Your task to perform on an android device: Open Maps and search for coffee Image 0: 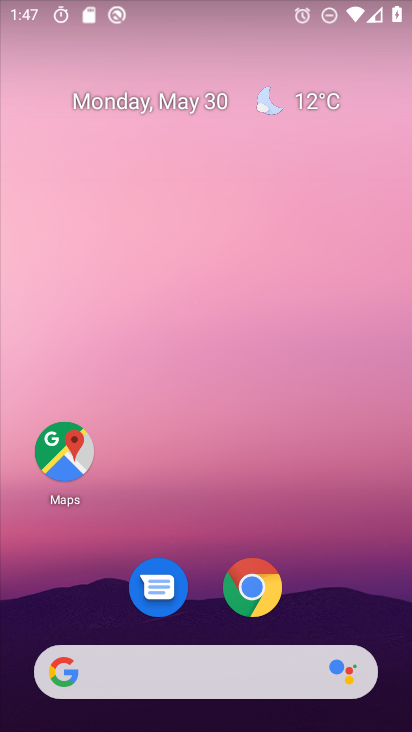
Step 0: click (63, 455)
Your task to perform on an android device: Open Maps and search for coffee Image 1: 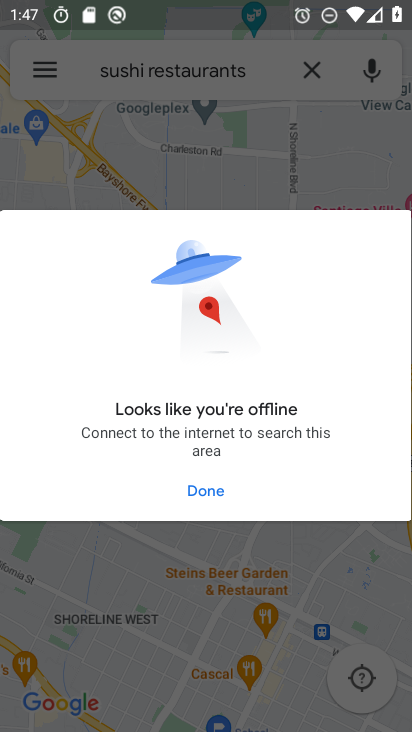
Step 1: click (218, 489)
Your task to perform on an android device: Open Maps and search for coffee Image 2: 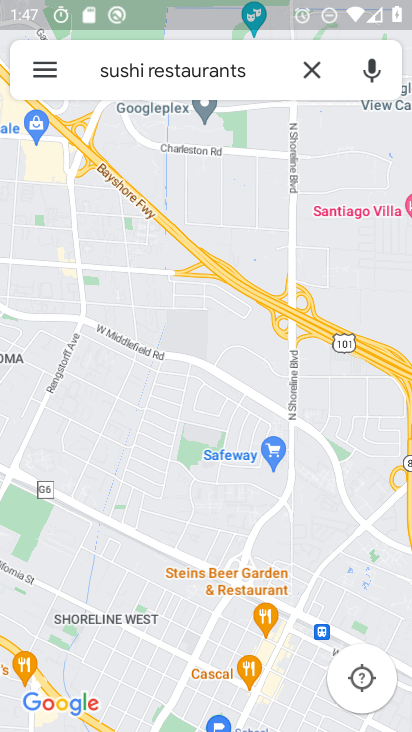
Step 2: click (292, 63)
Your task to perform on an android device: Open Maps and search for coffee Image 3: 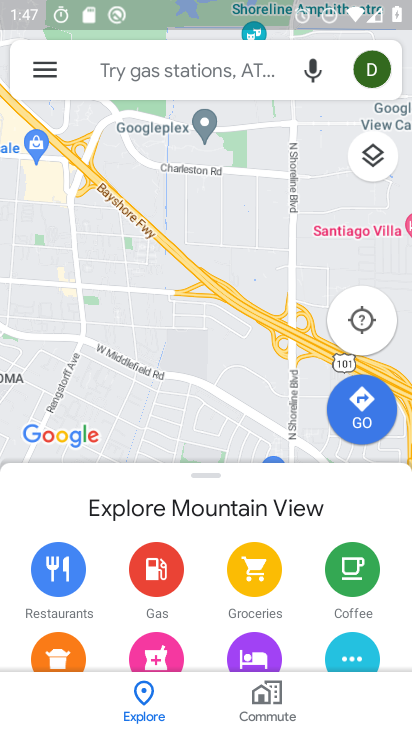
Step 3: click (196, 62)
Your task to perform on an android device: Open Maps and search for coffee Image 4: 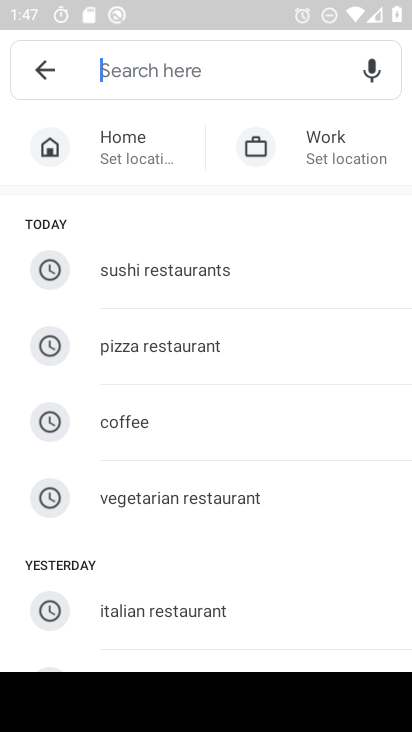
Step 4: click (141, 425)
Your task to perform on an android device: Open Maps and search for coffee Image 5: 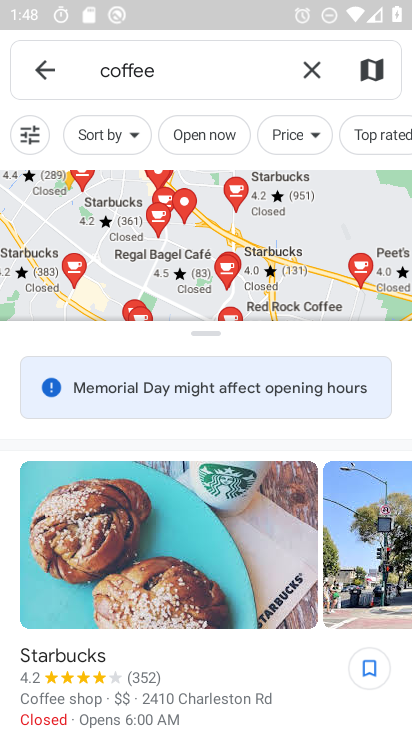
Step 5: task complete